Your task to perform on an android device: toggle improve location accuracy Image 0: 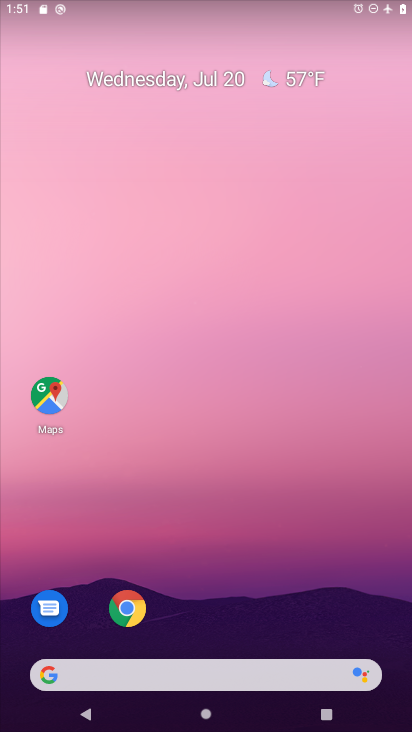
Step 0: drag from (244, 688) to (275, 30)
Your task to perform on an android device: toggle improve location accuracy Image 1: 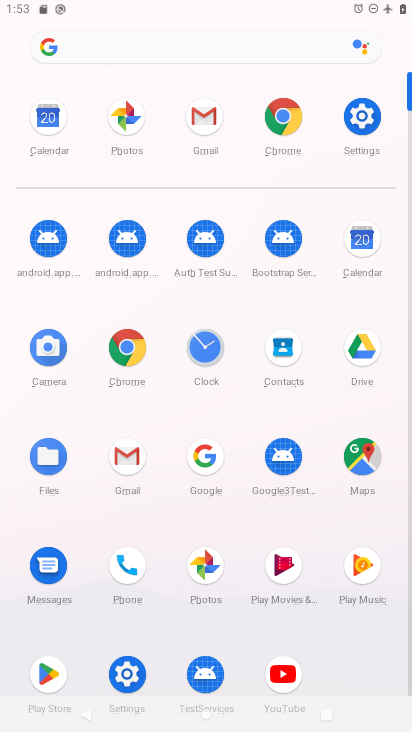
Step 1: click (358, 120)
Your task to perform on an android device: toggle improve location accuracy Image 2: 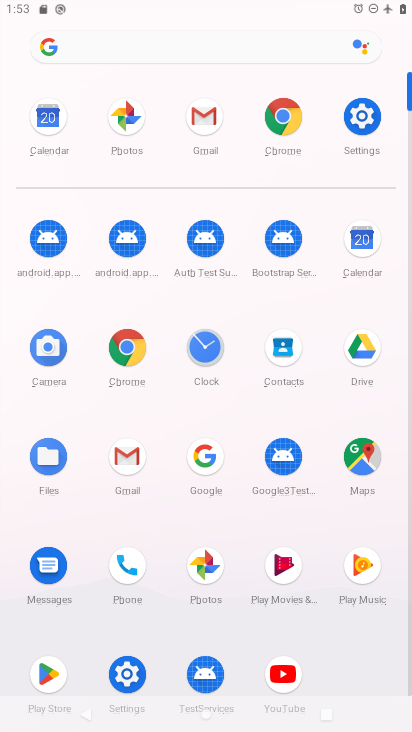
Step 2: click (358, 120)
Your task to perform on an android device: toggle improve location accuracy Image 3: 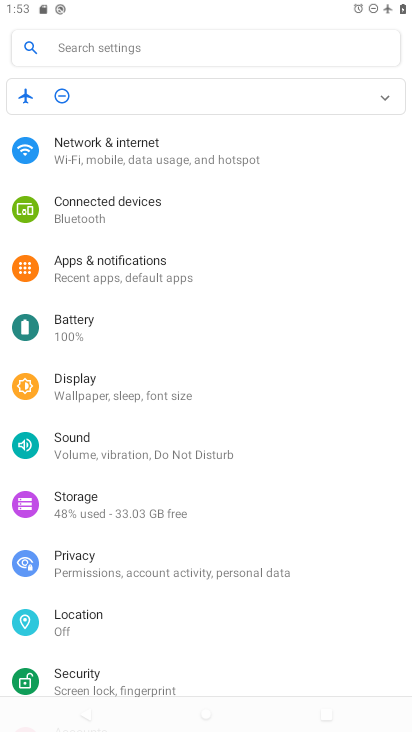
Step 3: click (103, 605)
Your task to perform on an android device: toggle improve location accuracy Image 4: 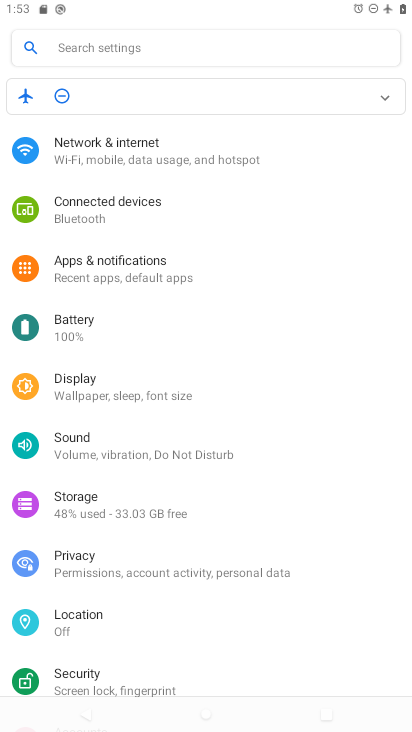
Step 4: click (103, 605)
Your task to perform on an android device: toggle improve location accuracy Image 5: 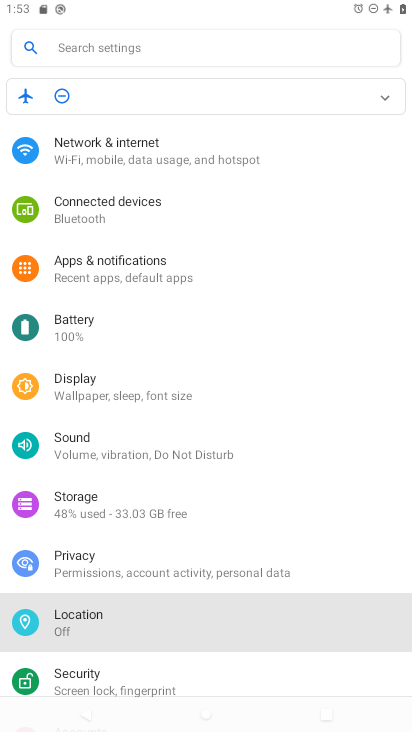
Step 5: click (103, 605)
Your task to perform on an android device: toggle improve location accuracy Image 6: 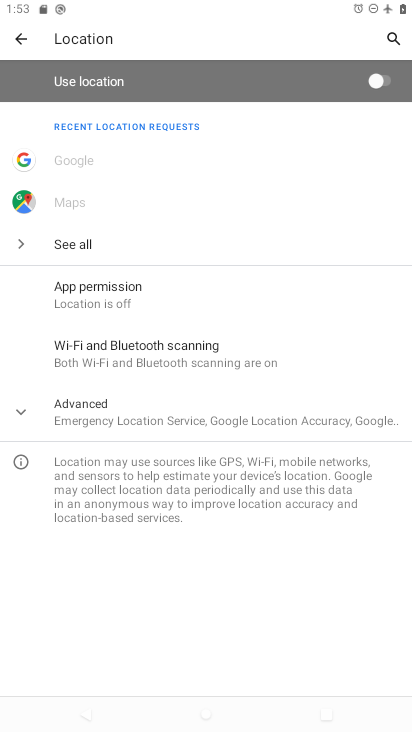
Step 6: click (180, 419)
Your task to perform on an android device: toggle improve location accuracy Image 7: 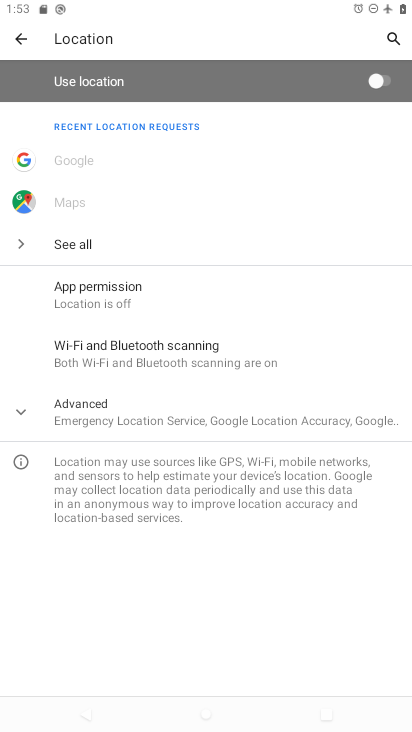
Step 7: click (180, 419)
Your task to perform on an android device: toggle improve location accuracy Image 8: 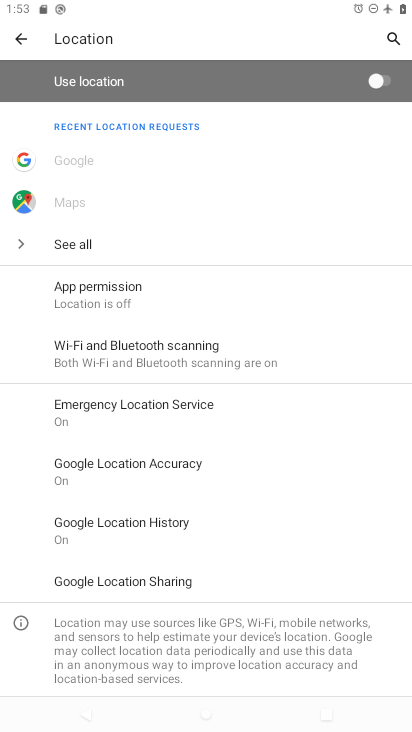
Step 8: click (175, 472)
Your task to perform on an android device: toggle improve location accuracy Image 9: 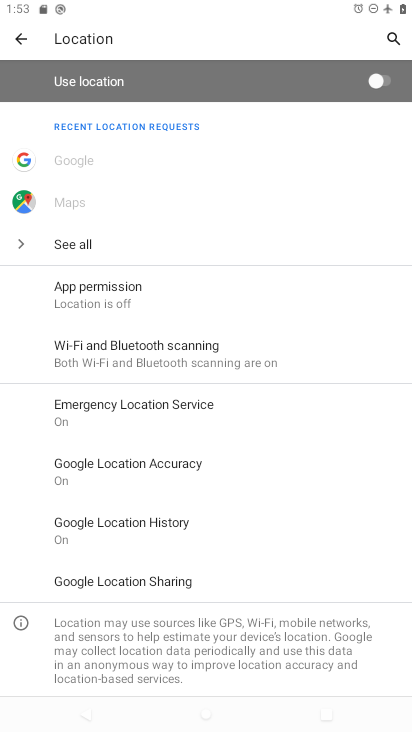
Step 9: click (175, 472)
Your task to perform on an android device: toggle improve location accuracy Image 10: 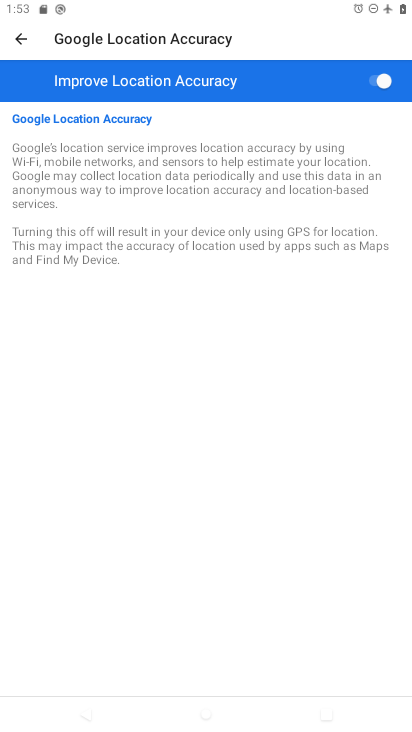
Step 10: click (395, 83)
Your task to perform on an android device: toggle improve location accuracy Image 11: 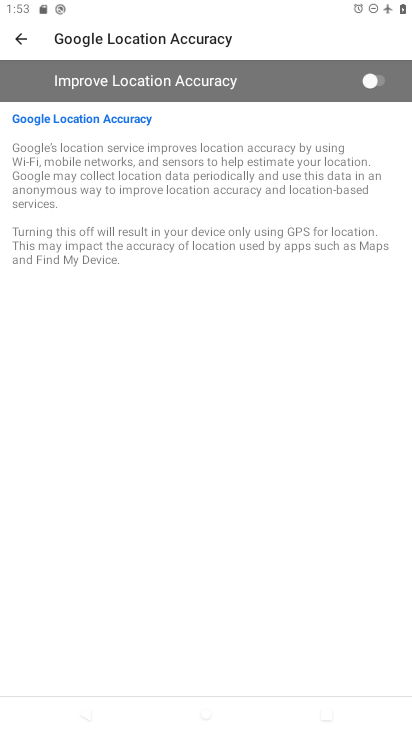
Step 11: task complete